Your task to perform on an android device: Open Amazon Image 0: 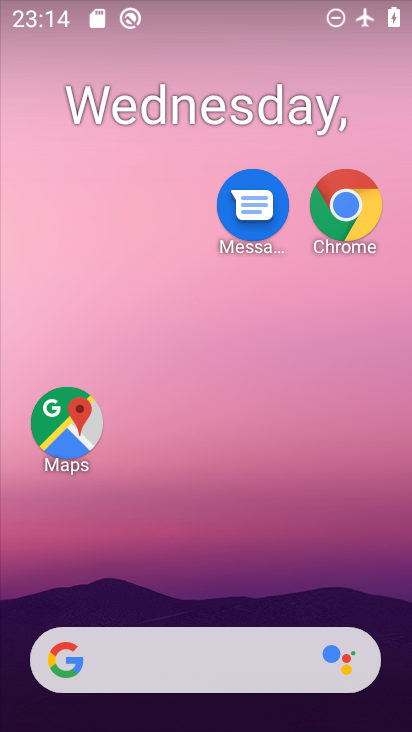
Step 0: drag from (237, 571) to (341, 53)
Your task to perform on an android device: Open Amazon Image 1: 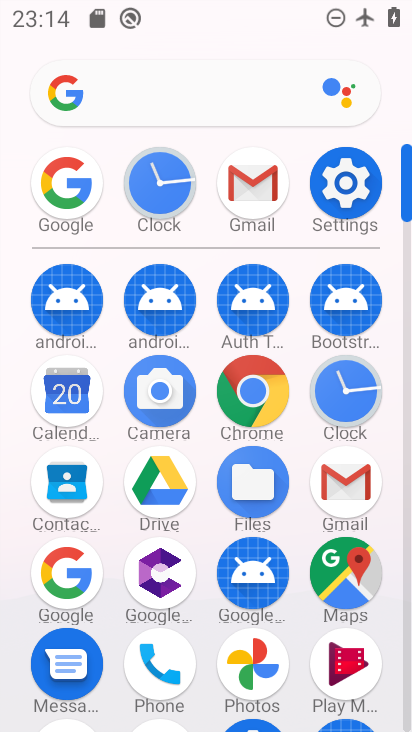
Step 1: click (254, 396)
Your task to perform on an android device: Open Amazon Image 2: 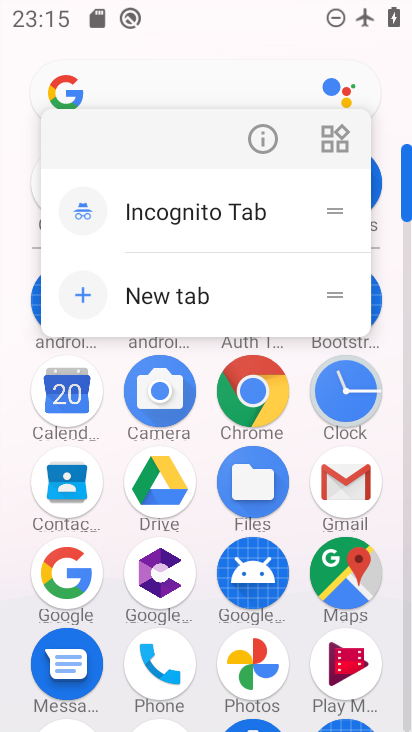
Step 2: click (252, 141)
Your task to perform on an android device: Open Amazon Image 3: 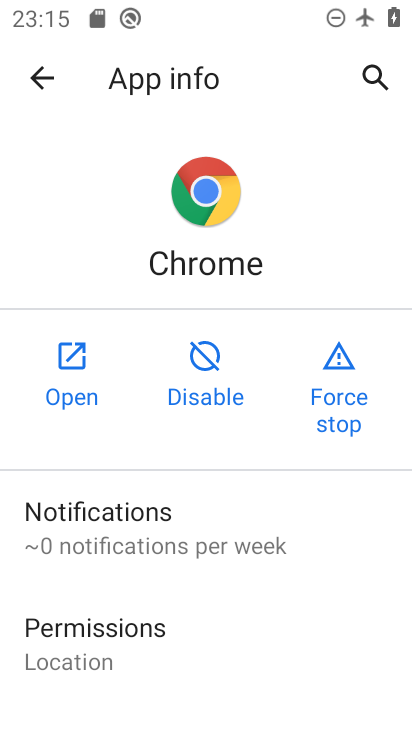
Step 3: click (84, 346)
Your task to perform on an android device: Open Amazon Image 4: 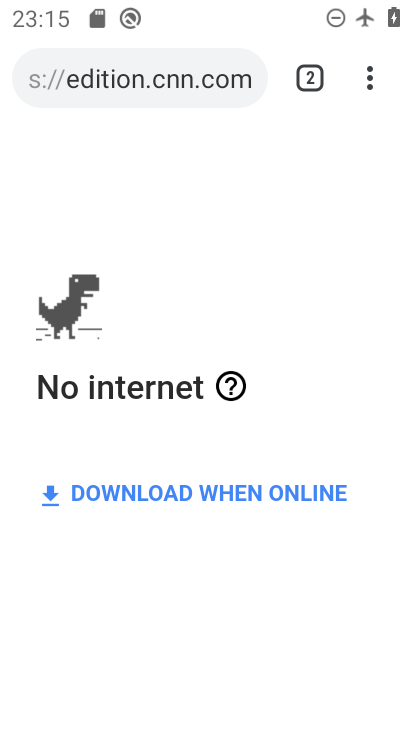
Step 4: click (312, 88)
Your task to perform on an android device: Open Amazon Image 5: 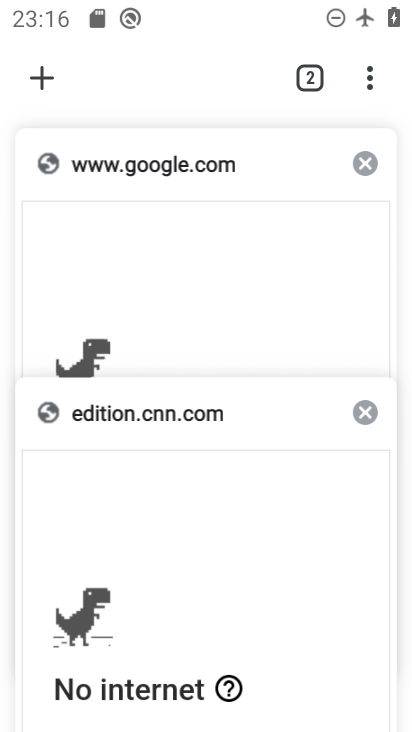
Step 5: click (52, 78)
Your task to perform on an android device: Open Amazon Image 6: 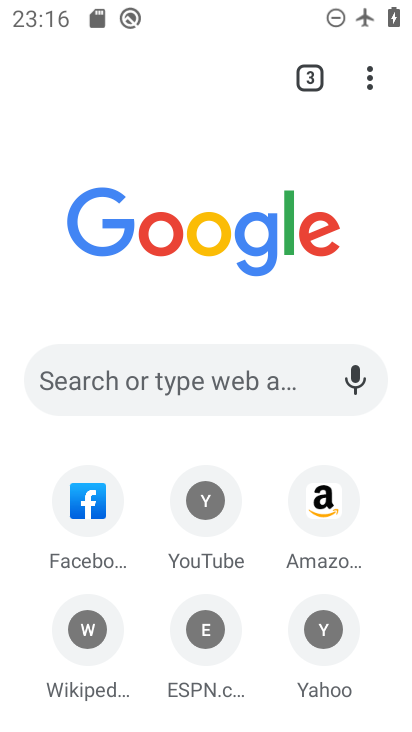
Step 6: click (326, 510)
Your task to perform on an android device: Open Amazon Image 7: 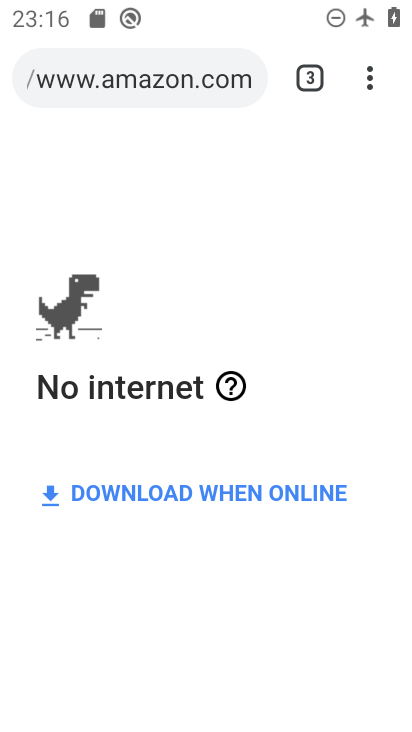
Step 7: task complete